Your task to perform on an android device: Find coffee shops on Maps Image 0: 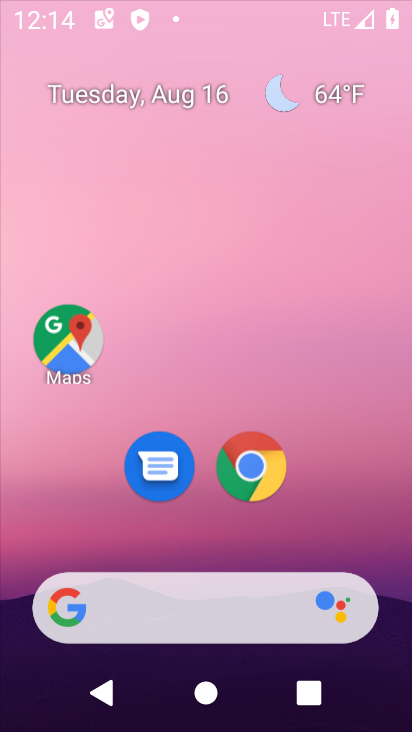
Step 0: click (183, 182)
Your task to perform on an android device: Find coffee shops on Maps Image 1: 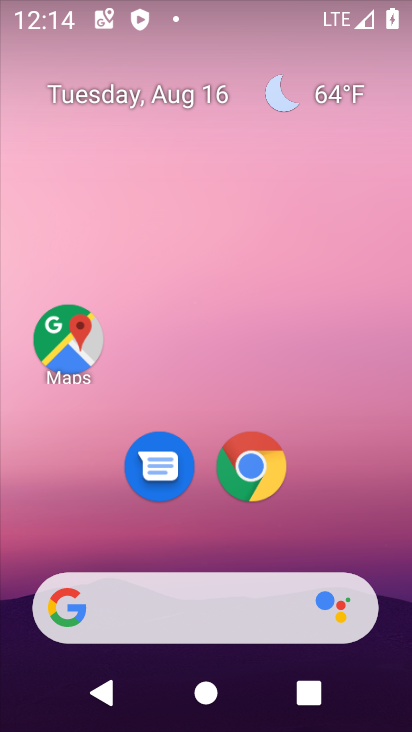
Step 1: drag from (147, 471) to (161, 248)
Your task to perform on an android device: Find coffee shops on Maps Image 2: 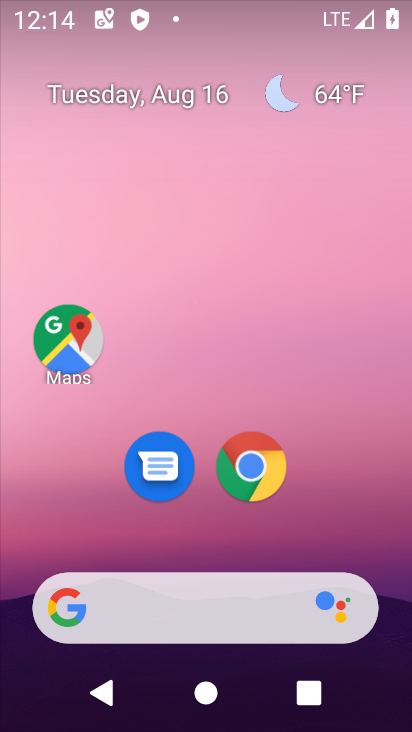
Step 2: drag from (178, 553) to (176, 197)
Your task to perform on an android device: Find coffee shops on Maps Image 3: 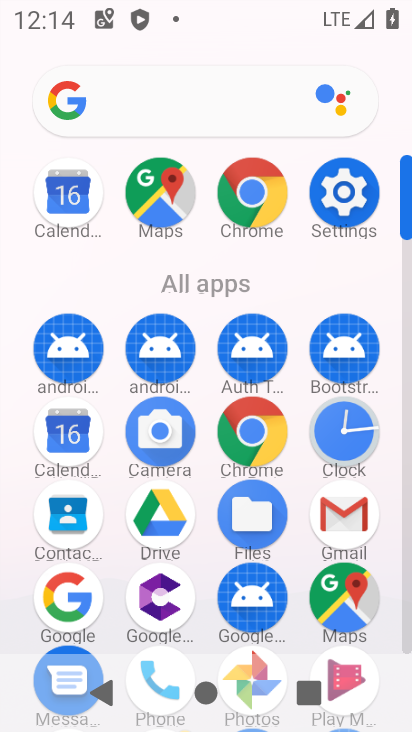
Step 3: click (350, 192)
Your task to perform on an android device: Find coffee shops on Maps Image 4: 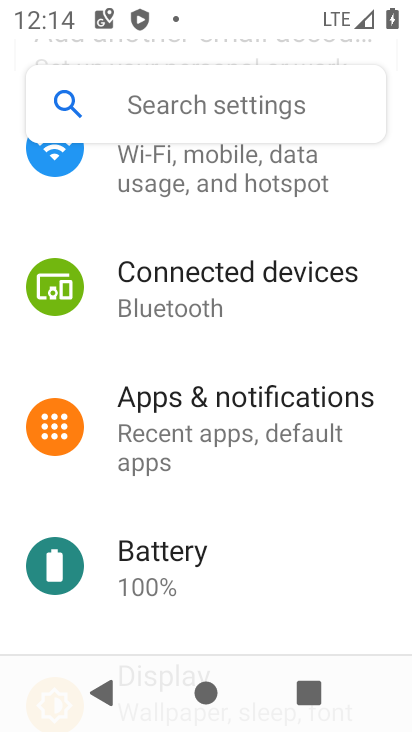
Step 4: press home button
Your task to perform on an android device: Find coffee shops on Maps Image 5: 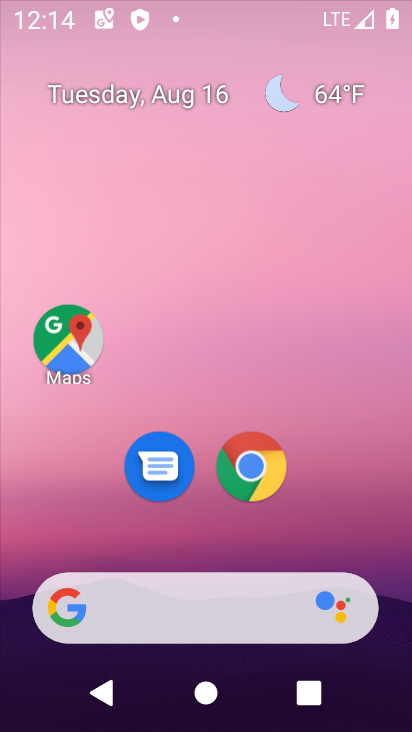
Step 5: drag from (244, 580) to (245, 162)
Your task to perform on an android device: Find coffee shops on Maps Image 6: 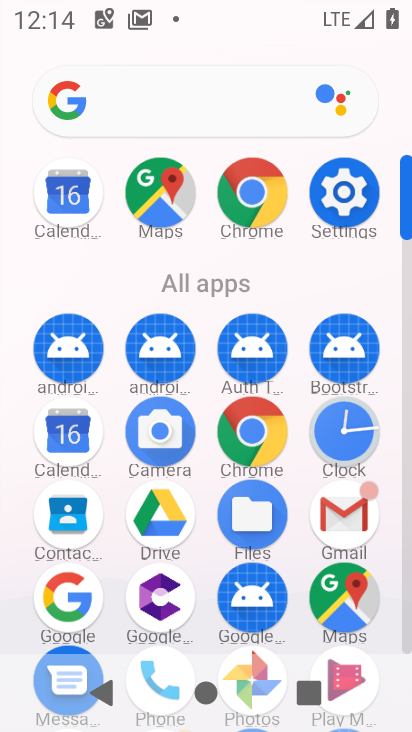
Step 6: click (182, 189)
Your task to perform on an android device: Find coffee shops on Maps Image 7: 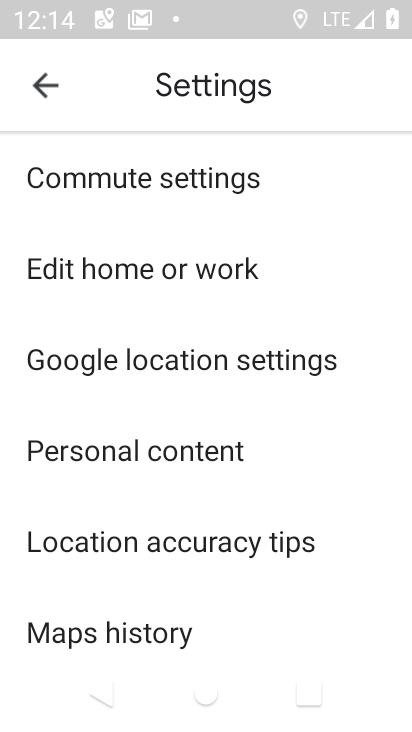
Step 7: click (36, 50)
Your task to perform on an android device: Find coffee shops on Maps Image 8: 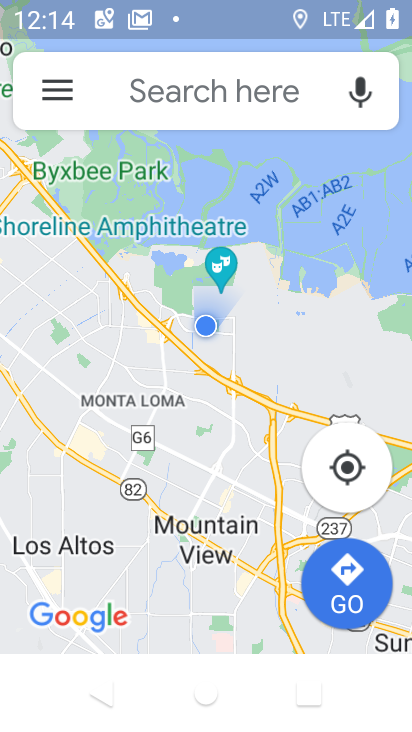
Step 8: click (196, 87)
Your task to perform on an android device: Find coffee shops on Maps Image 9: 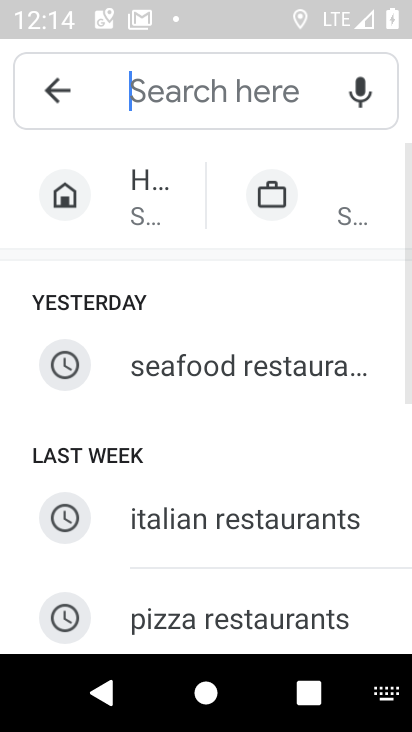
Step 9: drag from (214, 620) to (233, 207)
Your task to perform on an android device: Find coffee shops on Maps Image 10: 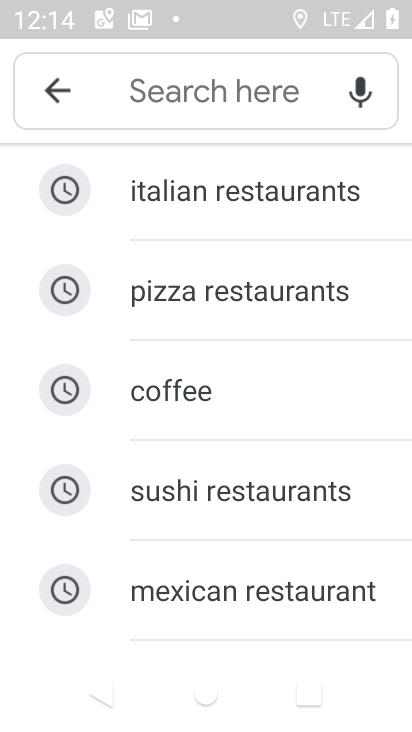
Step 10: click (190, 380)
Your task to perform on an android device: Find coffee shops on Maps Image 11: 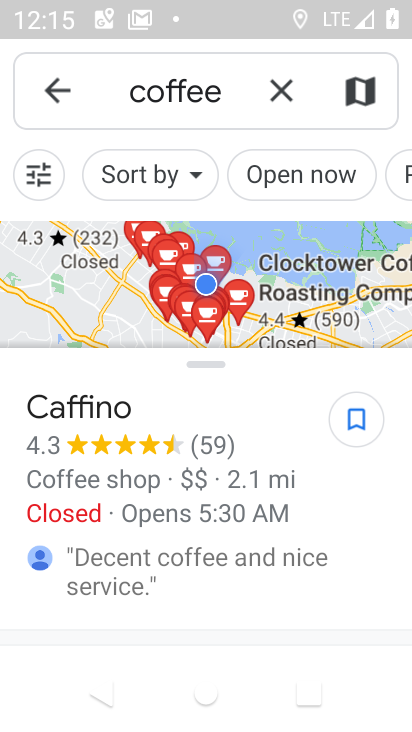
Step 11: task complete